Your task to perform on an android device: Open sound settings Image 0: 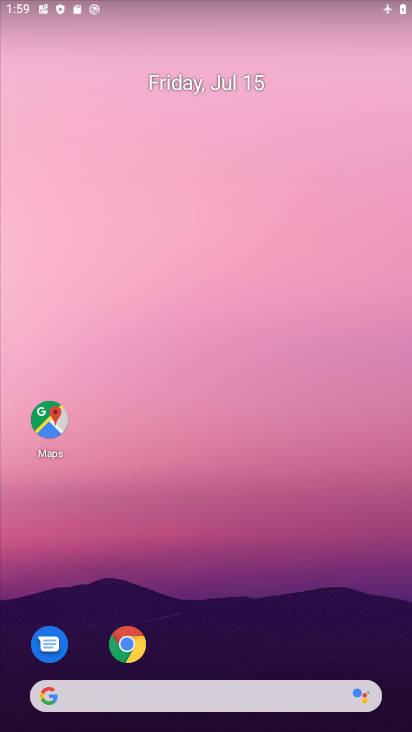
Step 0: drag from (55, 686) to (371, 3)
Your task to perform on an android device: Open sound settings Image 1: 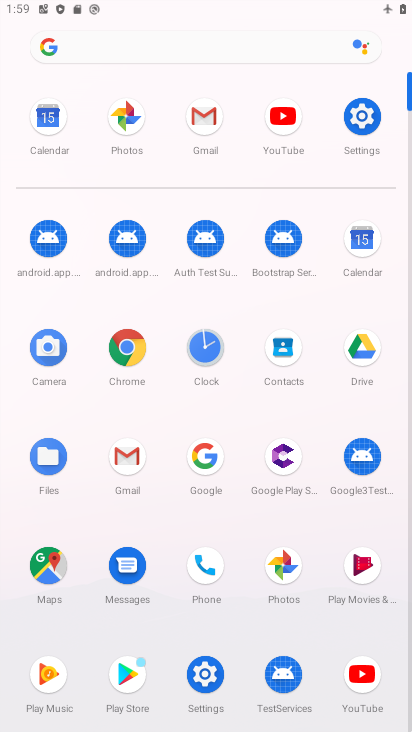
Step 1: click (219, 675)
Your task to perform on an android device: Open sound settings Image 2: 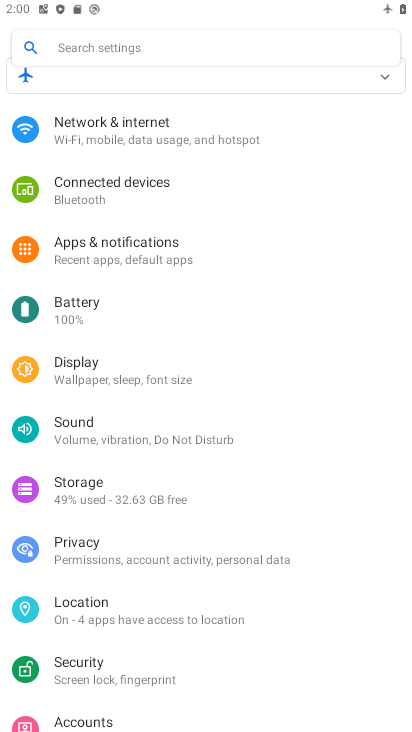
Step 2: click (107, 434)
Your task to perform on an android device: Open sound settings Image 3: 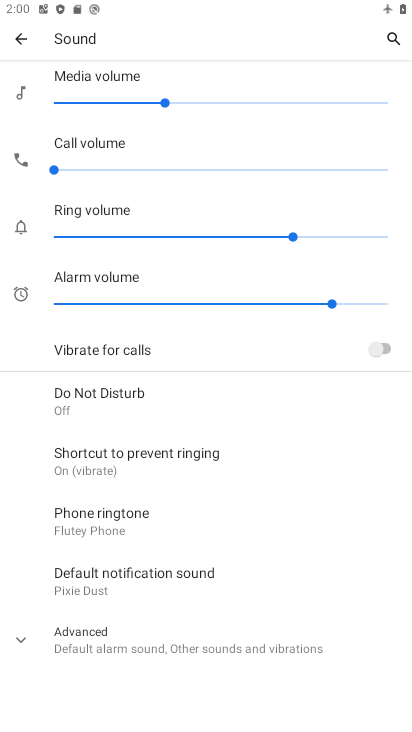
Step 3: task complete